Your task to perform on an android device: Open Yahoo.com Image 0: 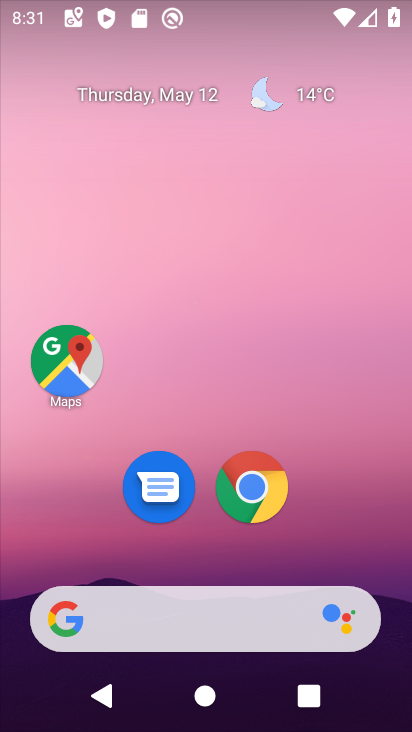
Step 0: click (254, 496)
Your task to perform on an android device: Open Yahoo.com Image 1: 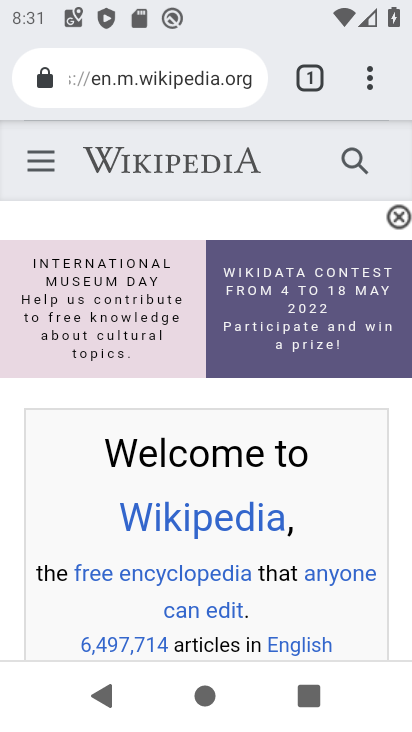
Step 1: click (121, 91)
Your task to perform on an android device: Open Yahoo.com Image 2: 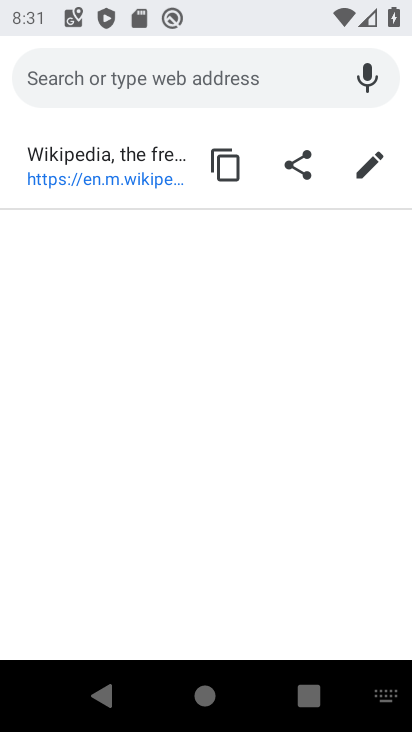
Step 2: type "yahoo.com"
Your task to perform on an android device: Open Yahoo.com Image 3: 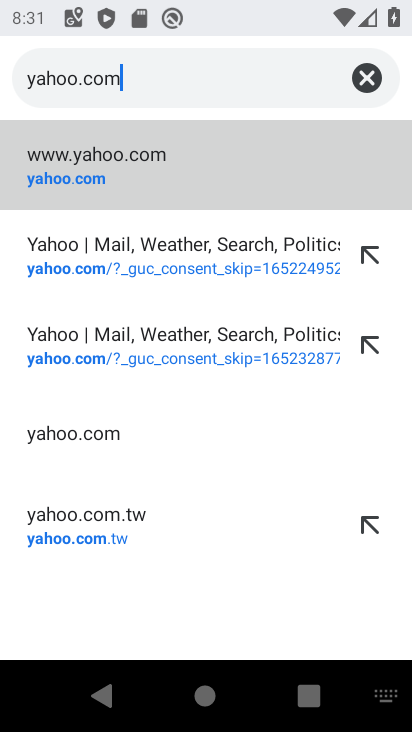
Step 3: click (75, 145)
Your task to perform on an android device: Open Yahoo.com Image 4: 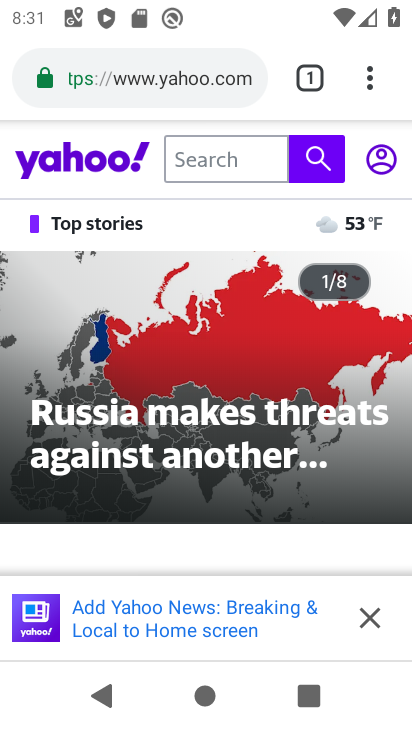
Step 4: task complete